Your task to perform on an android device: add a contact Image 0: 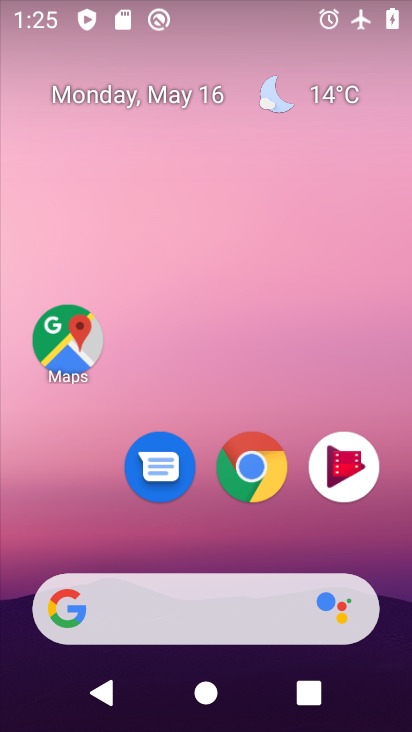
Step 0: drag from (228, 560) to (233, 231)
Your task to perform on an android device: add a contact Image 1: 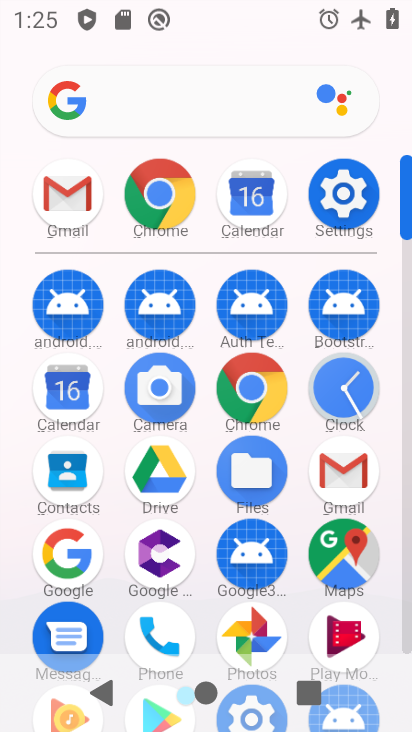
Step 1: click (157, 627)
Your task to perform on an android device: add a contact Image 2: 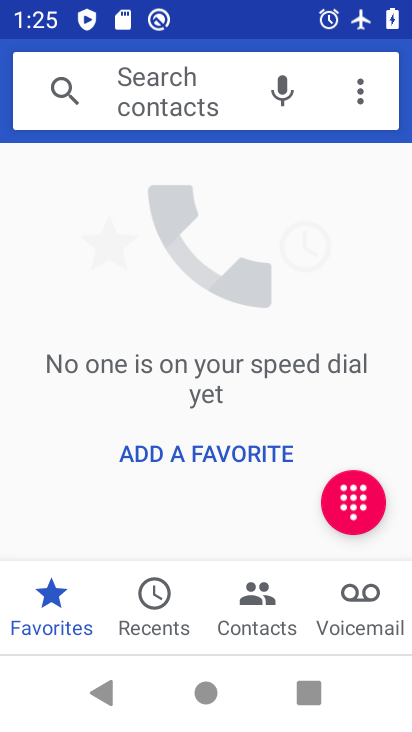
Step 2: click (174, 455)
Your task to perform on an android device: add a contact Image 3: 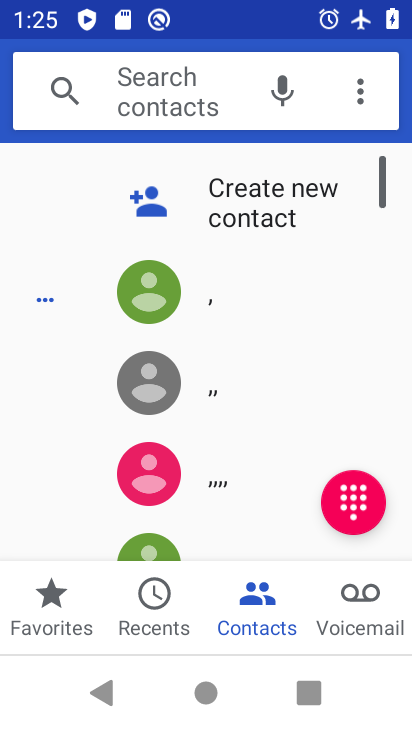
Step 3: click (257, 200)
Your task to perform on an android device: add a contact Image 4: 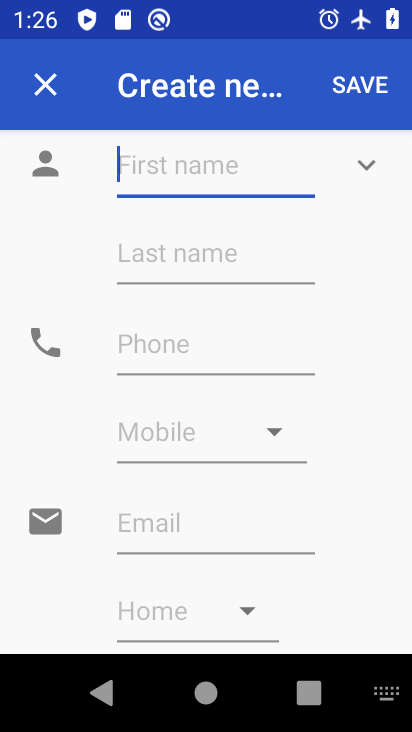
Step 4: click (211, 152)
Your task to perform on an android device: add a contact Image 5: 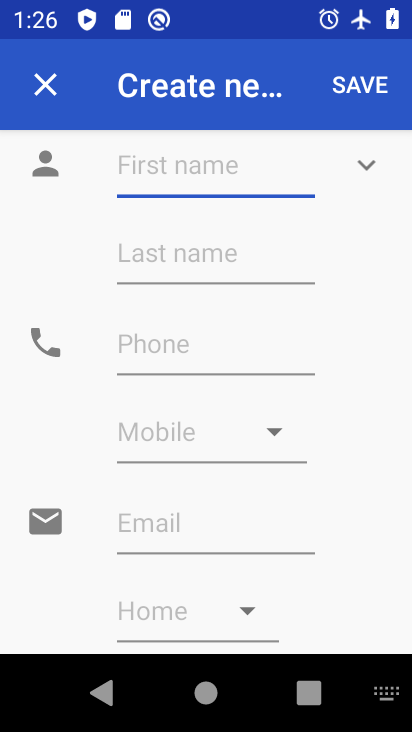
Step 5: type "kakakaakaka"
Your task to perform on an android device: add a contact Image 6: 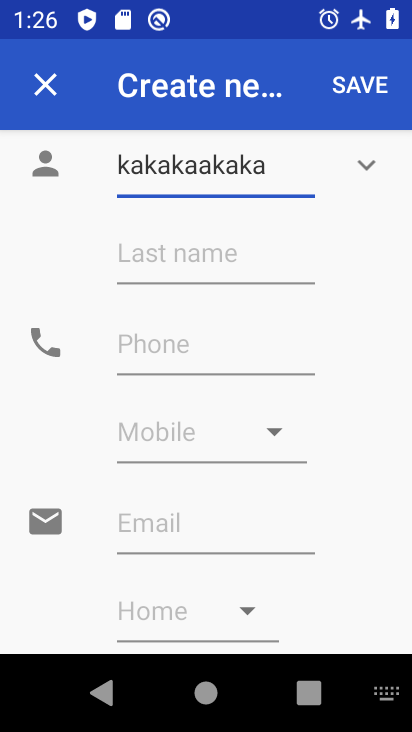
Step 6: click (212, 347)
Your task to perform on an android device: add a contact Image 7: 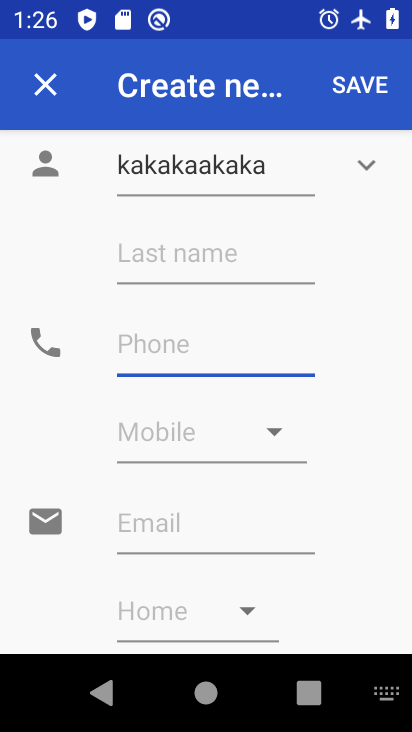
Step 7: type "90909090909"
Your task to perform on an android device: add a contact Image 8: 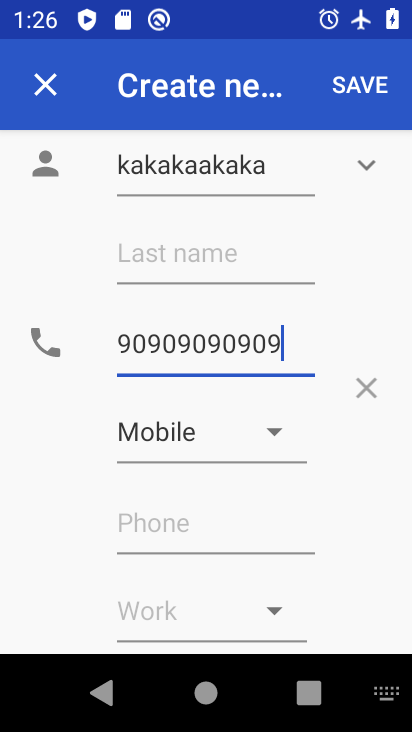
Step 8: click (351, 87)
Your task to perform on an android device: add a contact Image 9: 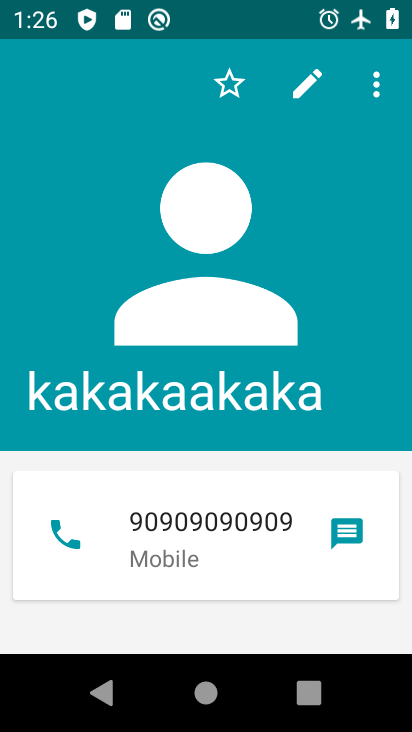
Step 9: task complete